Your task to perform on an android device: set the timer Image 0: 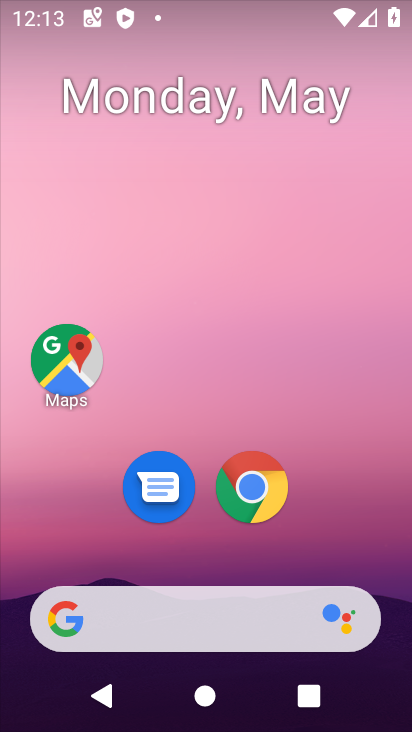
Step 0: drag from (214, 559) to (266, 60)
Your task to perform on an android device: set the timer Image 1: 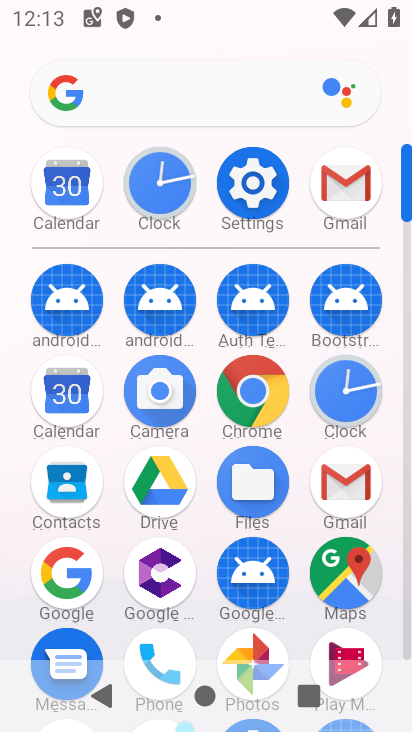
Step 1: click (338, 395)
Your task to perform on an android device: set the timer Image 2: 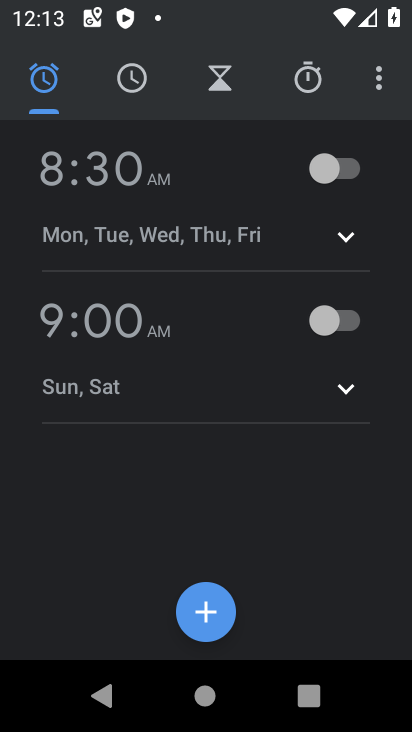
Step 2: click (218, 88)
Your task to perform on an android device: set the timer Image 3: 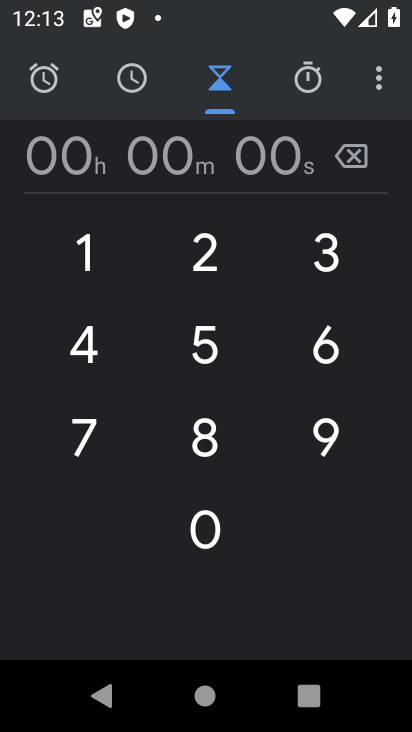
Step 3: click (91, 295)
Your task to perform on an android device: set the timer Image 4: 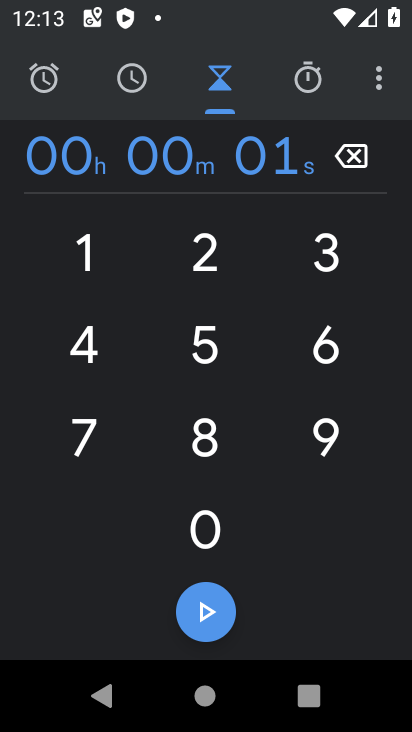
Step 4: click (91, 284)
Your task to perform on an android device: set the timer Image 5: 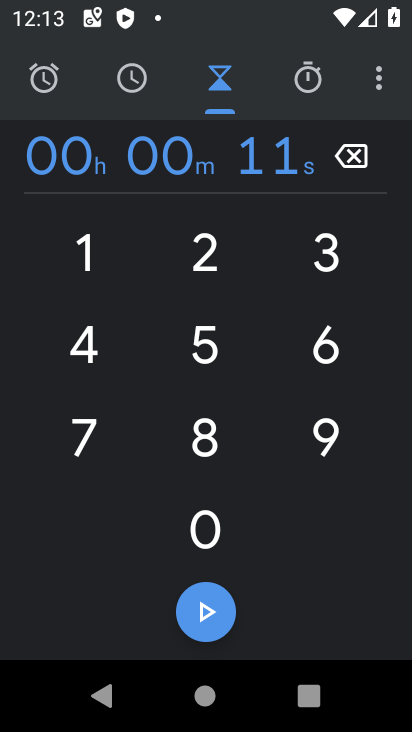
Step 5: click (91, 284)
Your task to perform on an android device: set the timer Image 6: 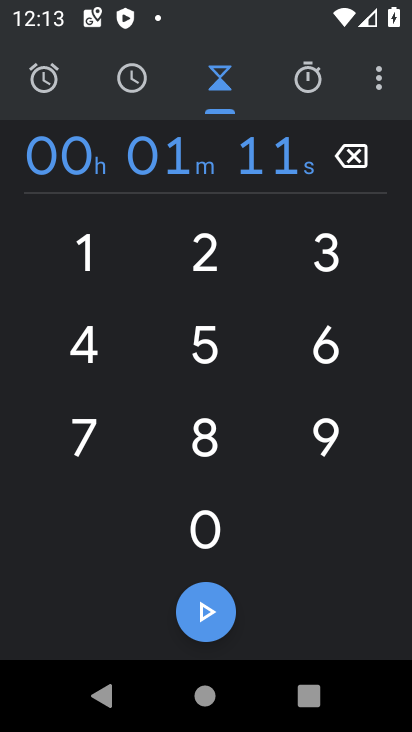
Step 6: click (91, 284)
Your task to perform on an android device: set the timer Image 7: 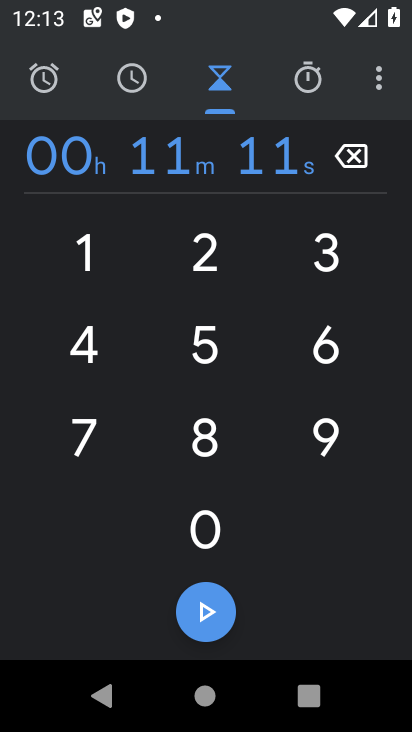
Step 7: click (91, 284)
Your task to perform on an android device: set the timer Image 8: 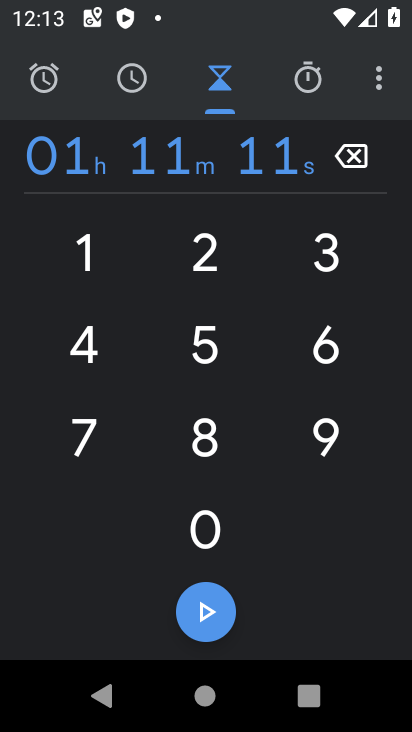
Step 8: click (91, 284)
Your task to perform on an android device: set the timer Image 9: 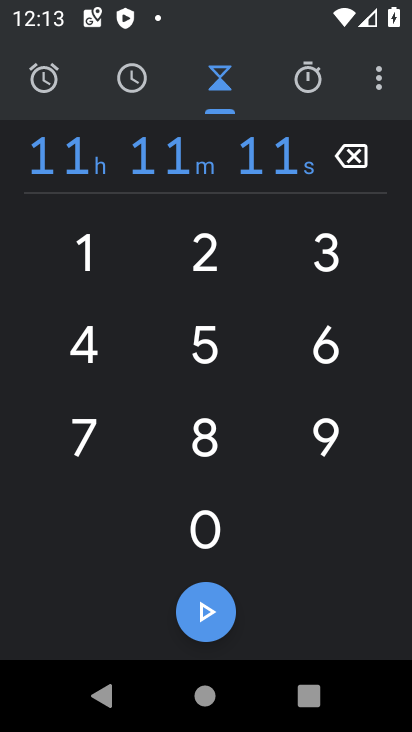
Step 9: click (199, 607)
Your task to perform on an android device: set the timer Image 10: 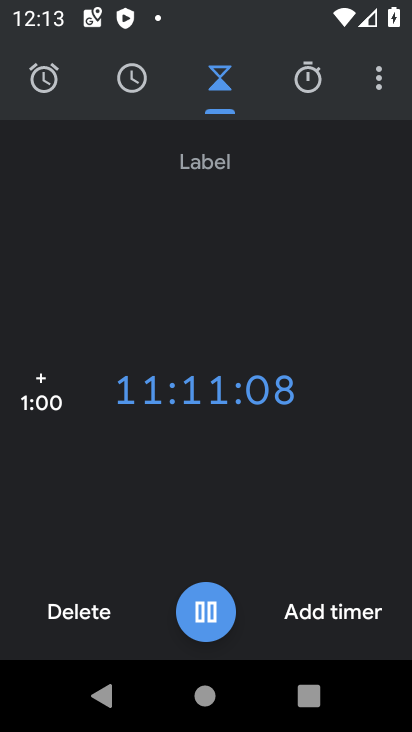
Step 10: task complete